Your task to perform on an android device: Show the shopping cart on ebay.com. Add jbl flip 4 to the cart on ebay.com, then select checkout. Image 0: 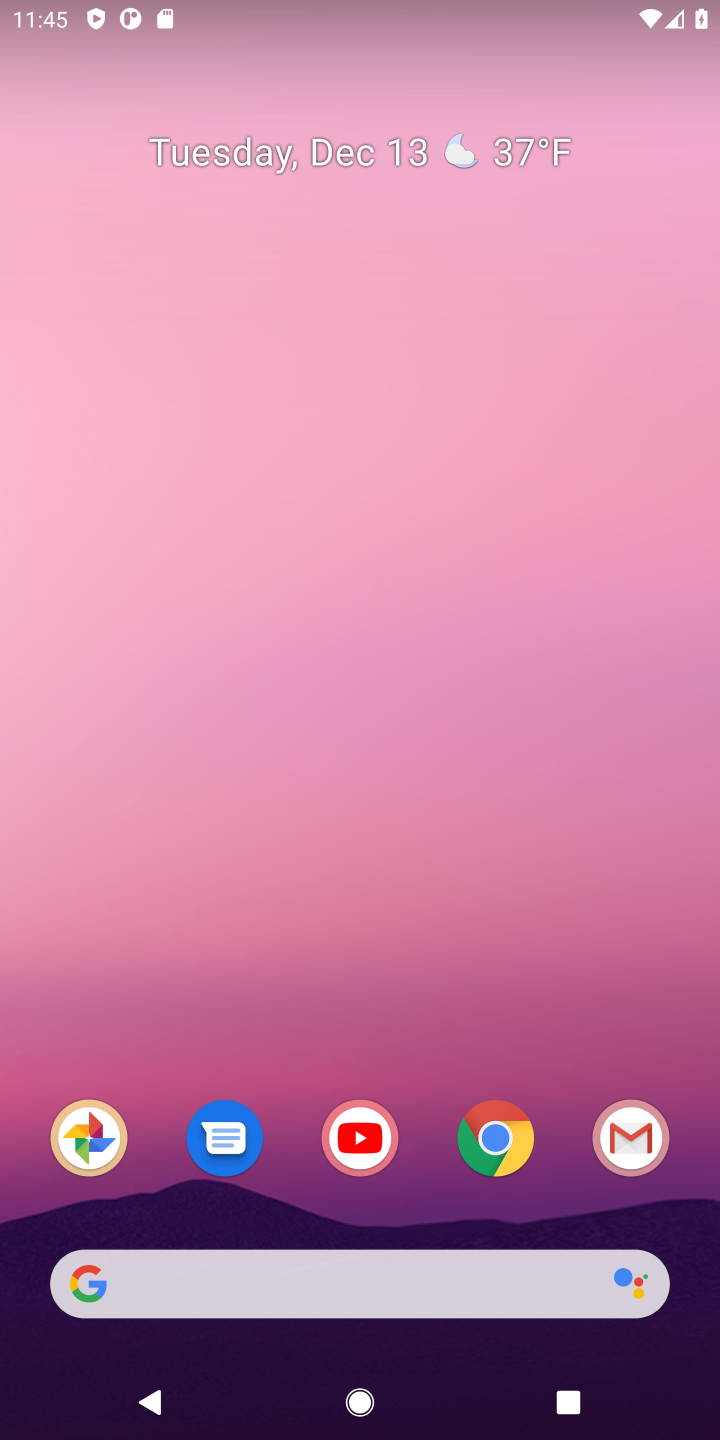
Step 0: click (495, 1154)
Your task to perform on an android device: Show the shopping cart on ebay.com. Add jbl flip 4 to the cart on ebay.com, then select checkout. Image 1: 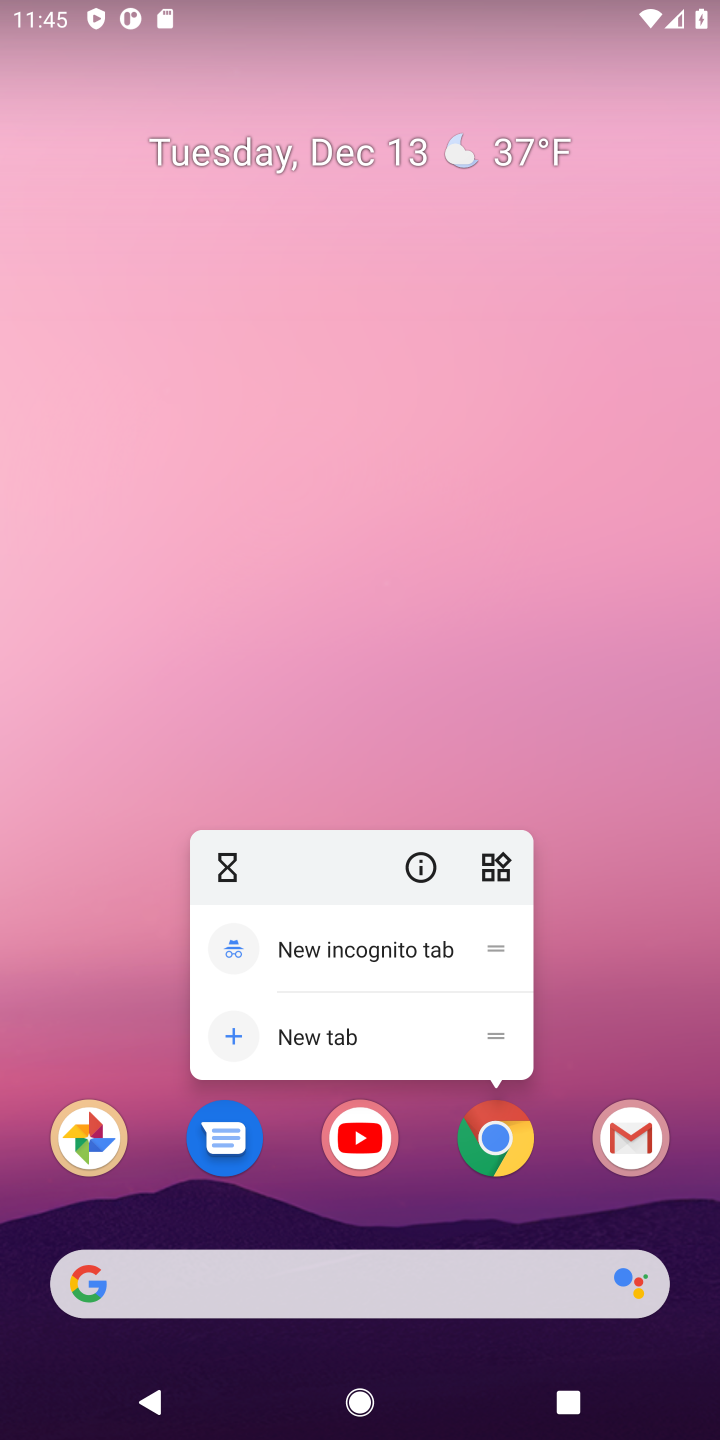
Step 1: click (497, 1136)
Your task to perform on an android device: Show the shopping cart on ebay.com. Add jbl flip 4 to the cart on ebay.com, then select checkout. Image 2: 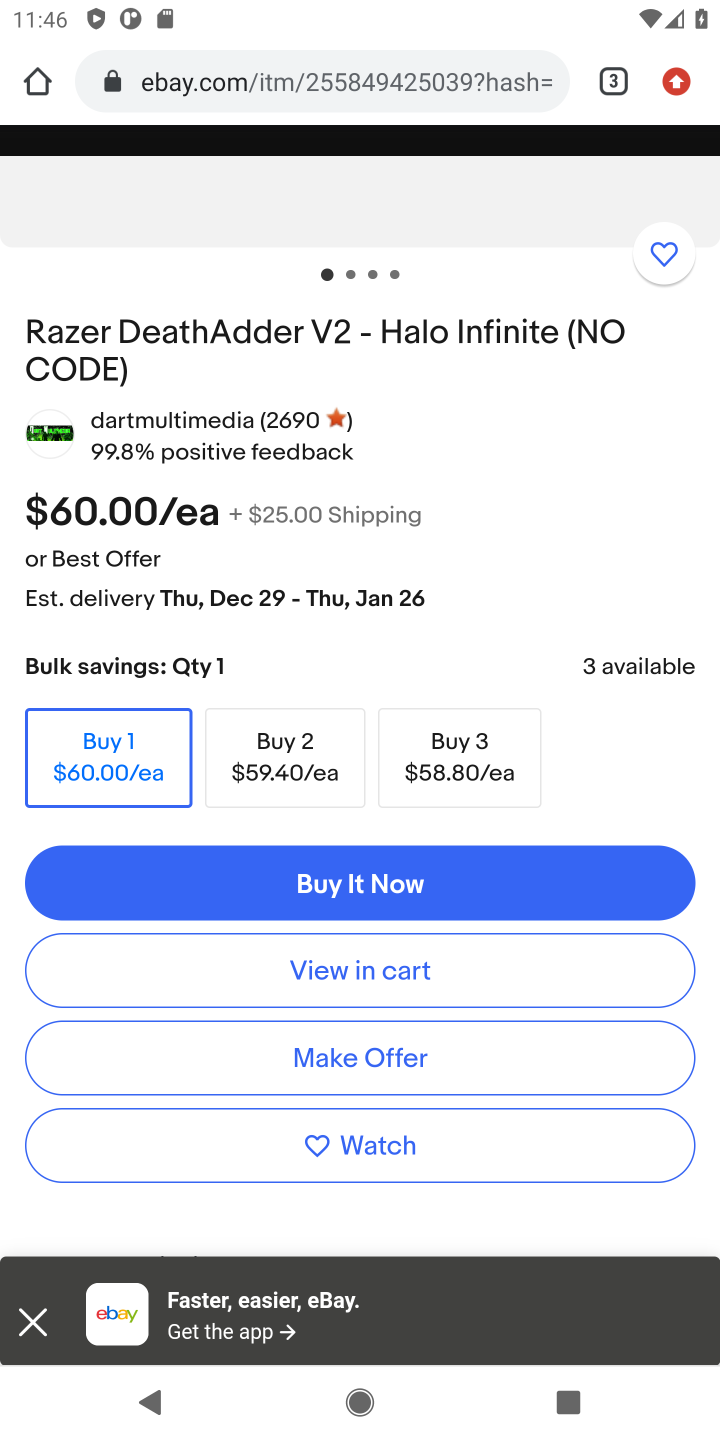
Step 2: drag from (420, 305) to (420, 1122)
Your task to perform on an android device: Show the shopping cart on ebay.com. Add jbl flip 4 to the cart on ebay.com, then select checkout. Image 3: 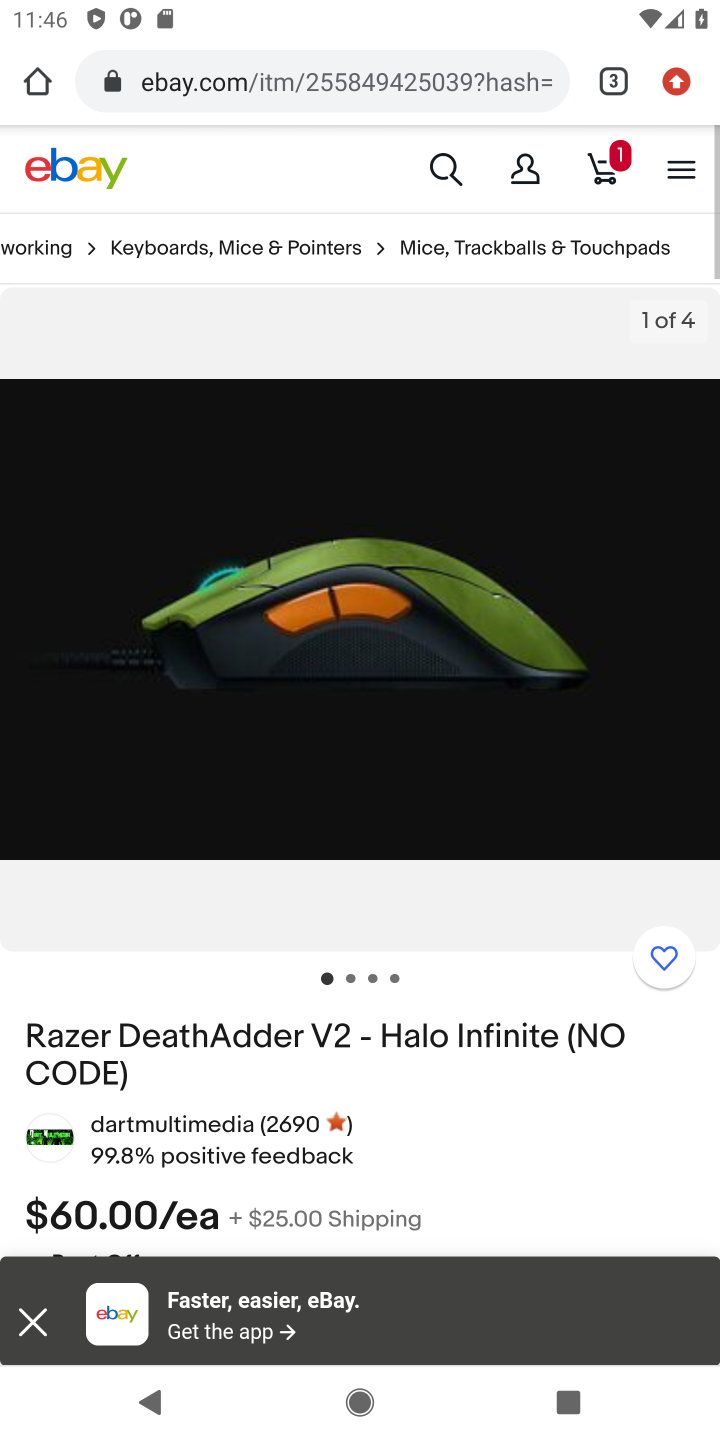
Step 3: drag from (470, 245) to (500, 948)
Your task to perform on an android device: Show the shopping cart on ebay.com. Add jbl flip 4 to the cart on ebay.com, then select checkout. Image 4: 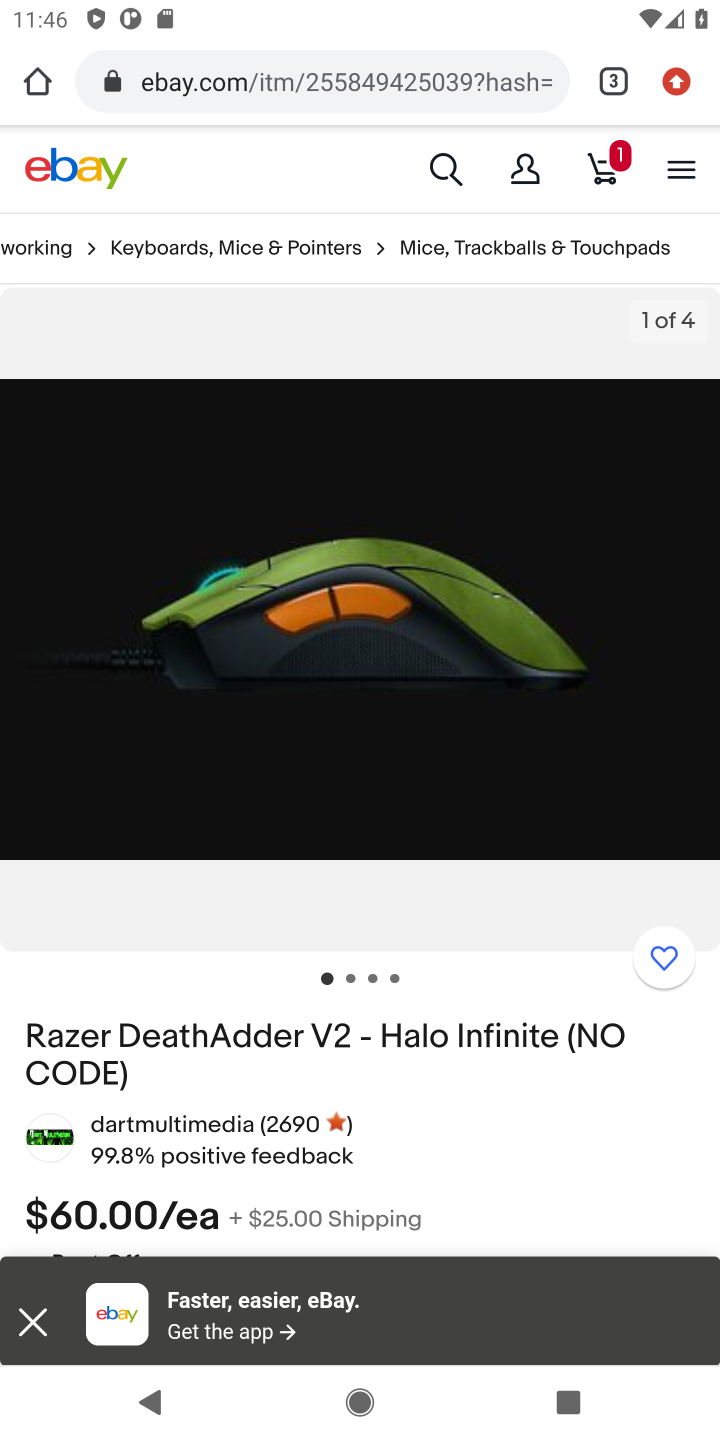
Step 4: click (442, 168)
Your task to perform on an android device: Show the shopping cart on ebay.com. Add jbl flip 4 to the cart on ebay.com, then select checkout. Image 5: 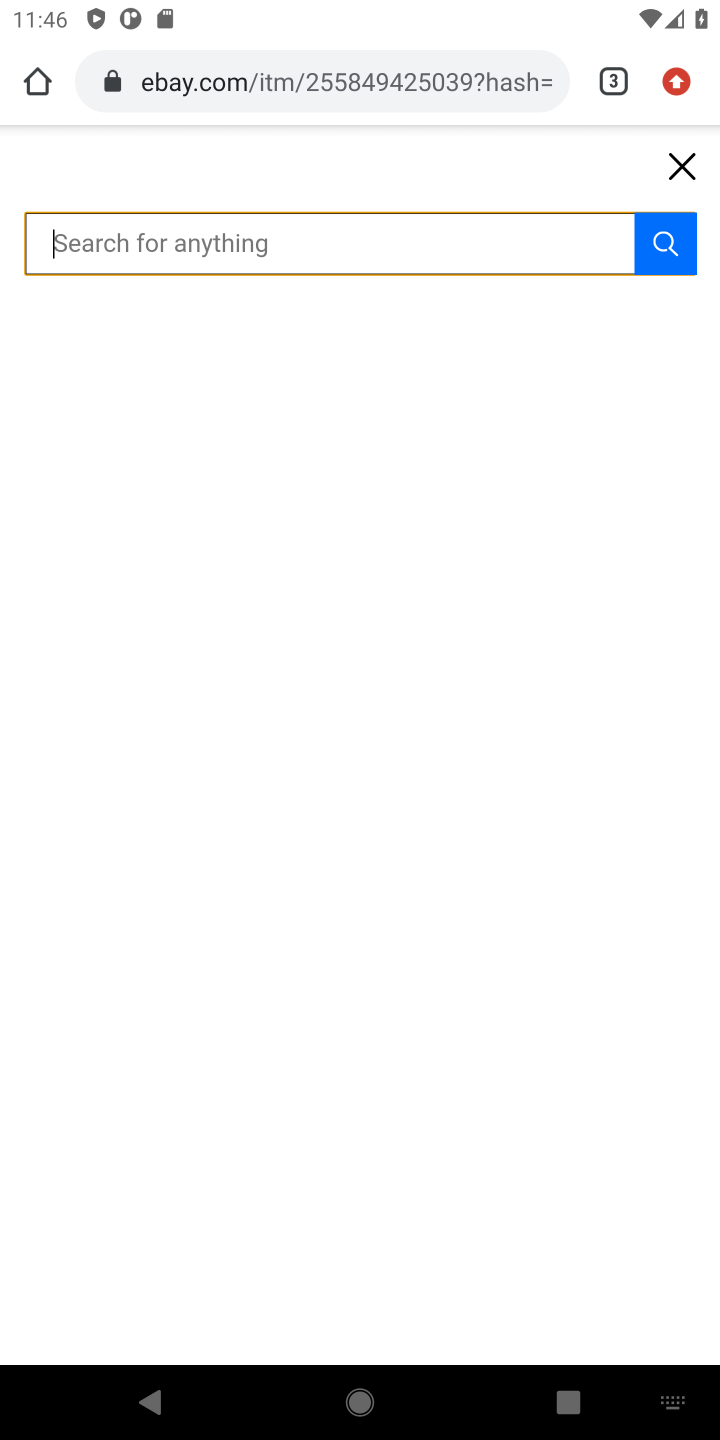
Step 5: type "jbl flip 4"
Your task to perform on an android device: Show the shopping cart on ebay.com. Add jbl flip 4 to the cart on ebay.com, then select checkout. Image 6: 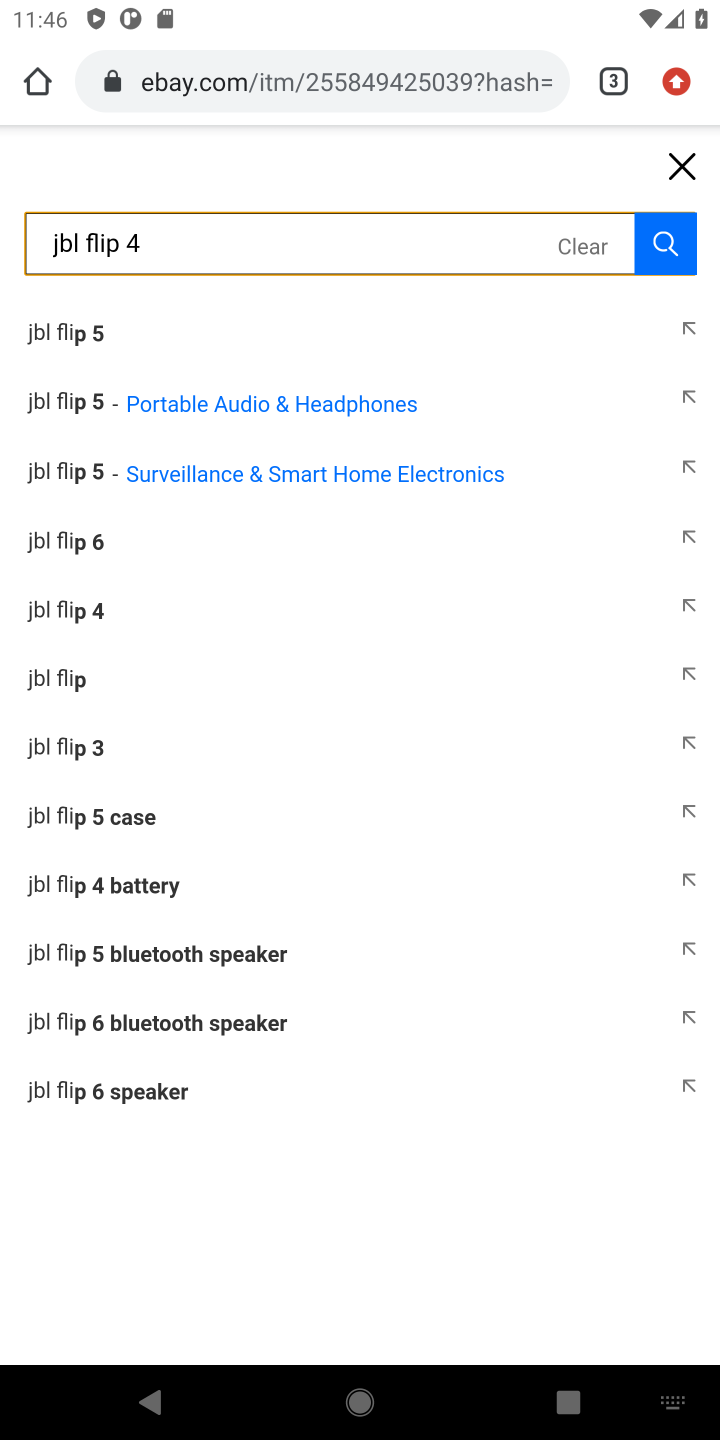
Step 6: click (66, 397)
Your task to perform on an android device: Show the shopping cart on ebay.com. Add jbl flip 4 to the cart on ebay.com, then select checkout. Image 7: 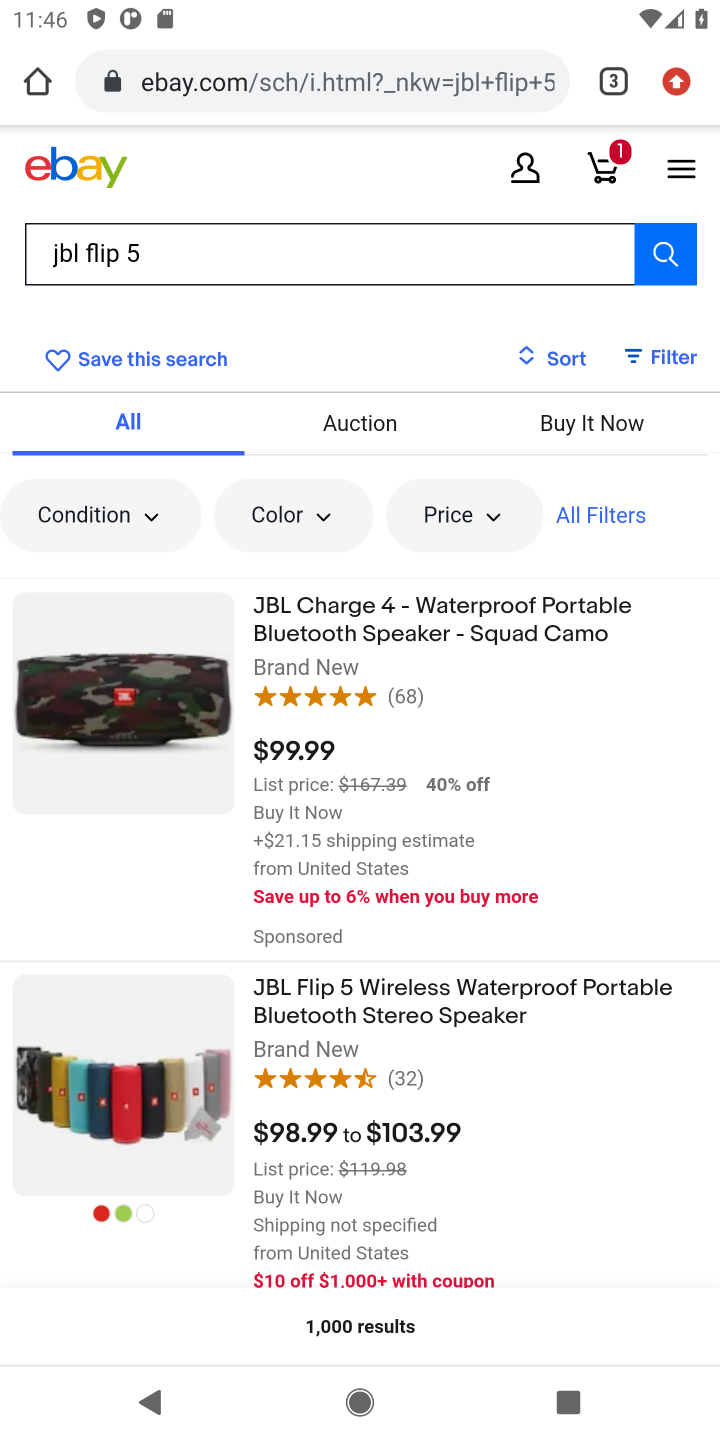
Step 7: click (454, 641)
Your task to perform on an android device: Show the shopping cart on ebay.com. Add jbl flip 4 to the cart on ebay.com, then select checkout. Image 8: 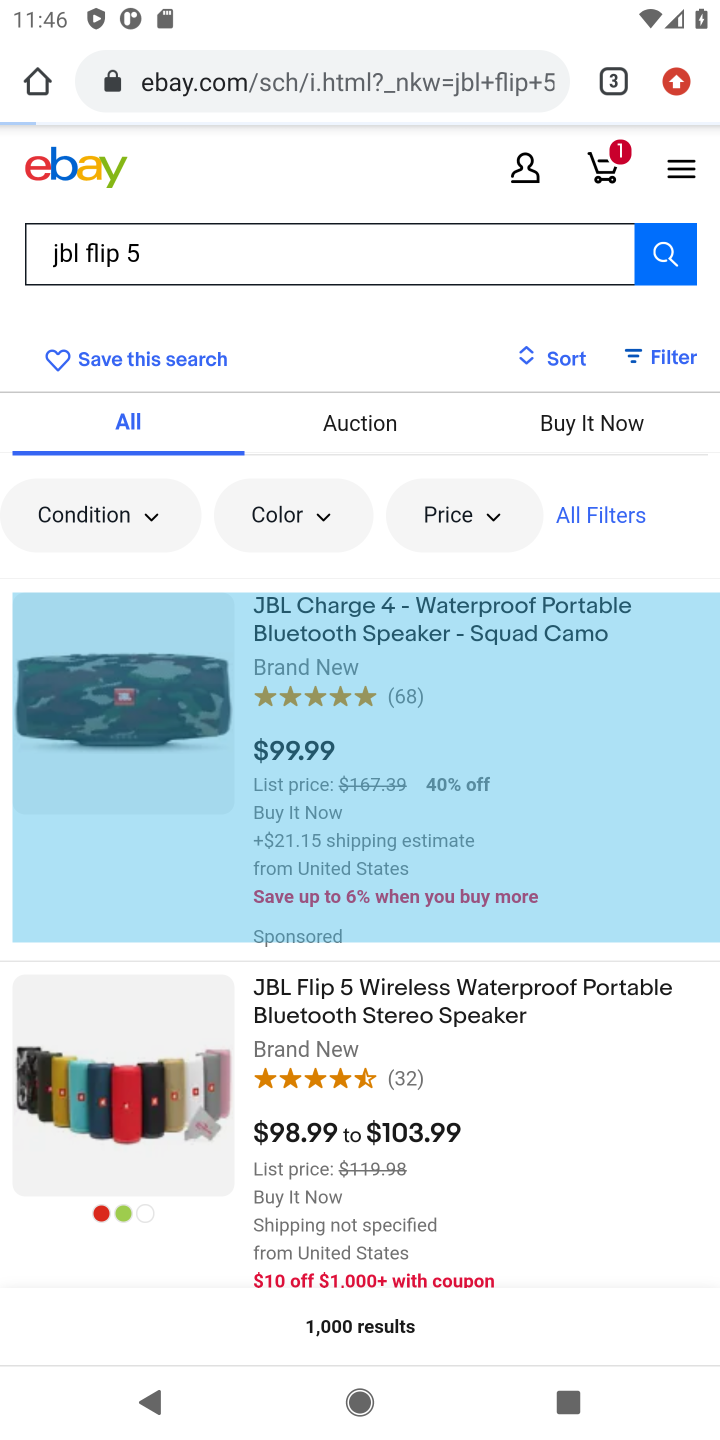
Step 8: click (454, 641)
Your task to perform on an android device: Show the shopping cart on ebay.com. Add jbl flip 4 to the cart on ebay.com, then select checkout. Image 9: 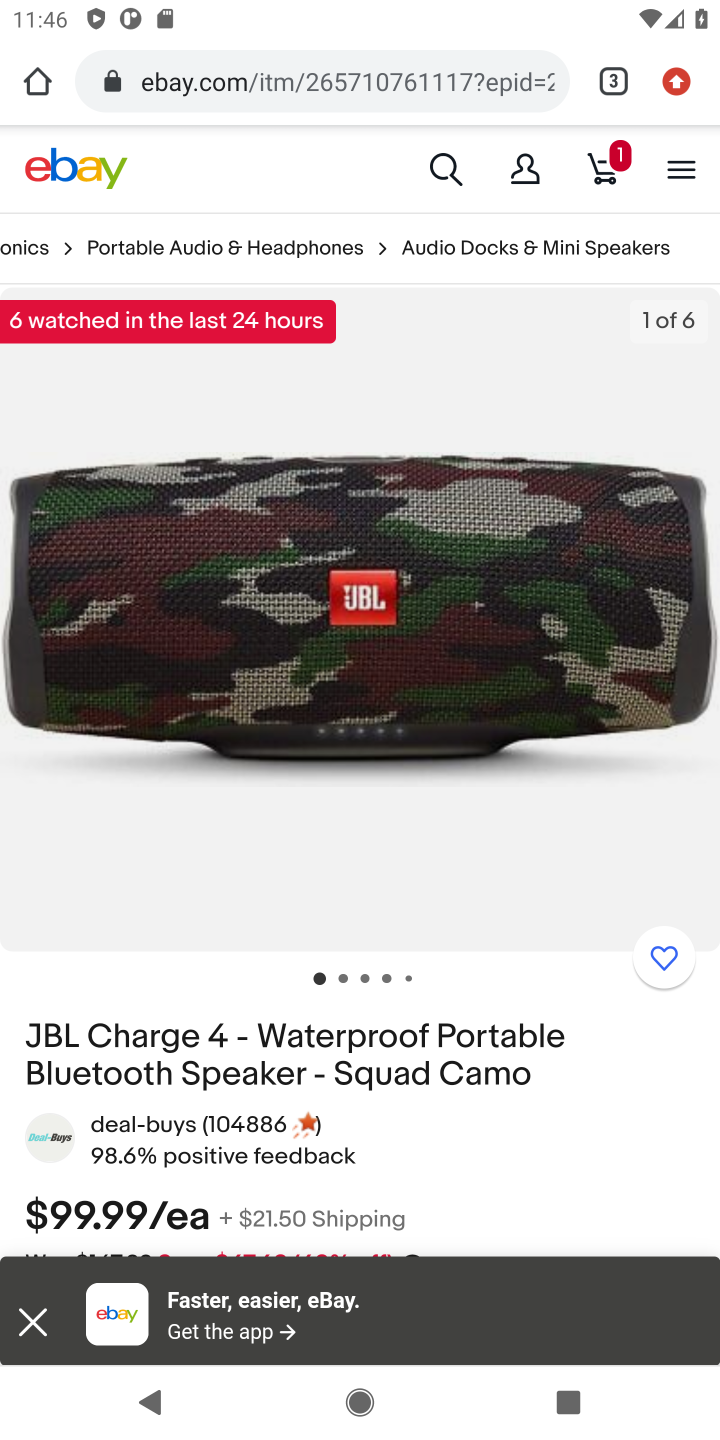
Step 9: drag from (541, 1169) to (666, 724)
Your task to perform on an android device: Show the shopping cart on ebay.com. Add jbl flip 4 to the cart on ebay.com, then select checkout. Image 10: 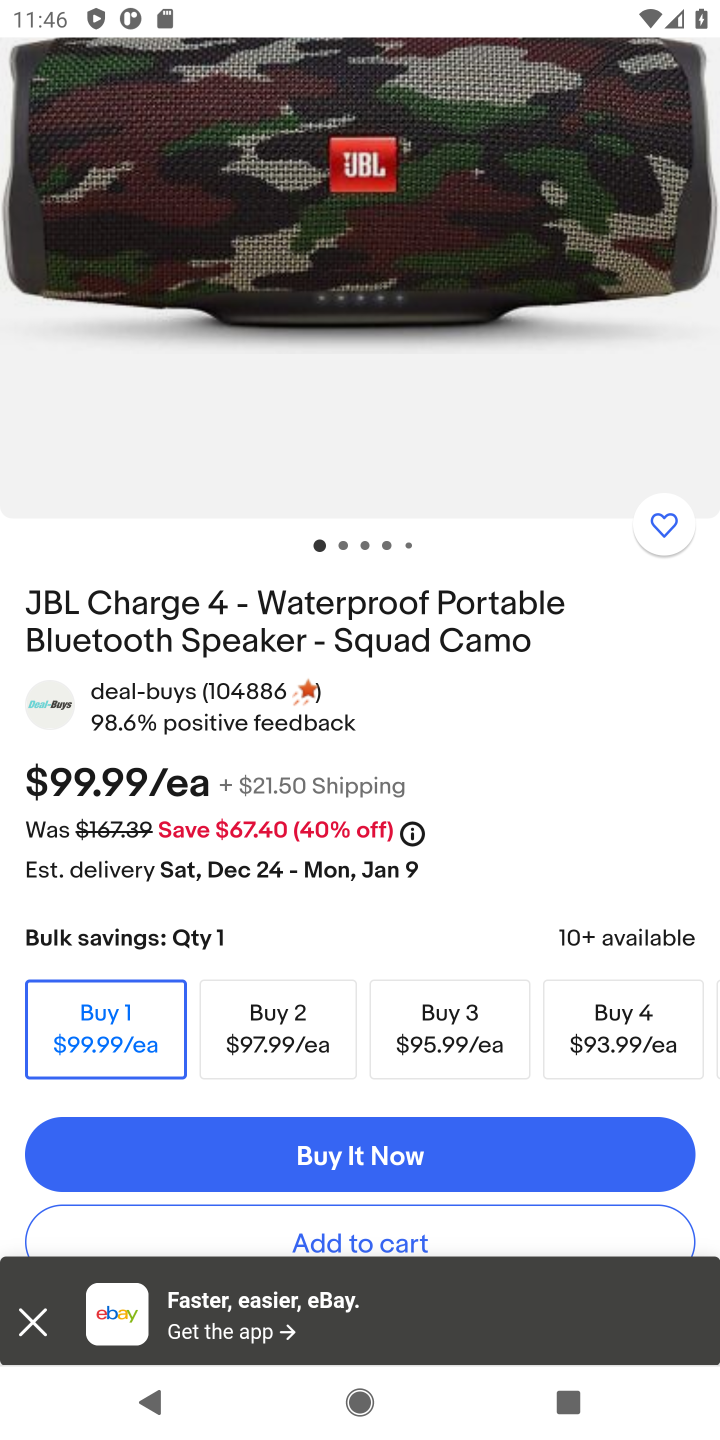
Step 10: drag from (473, 848) to (701, 636)
Your task to perform on an android device: Show the shopping cart on ebay.com. Add jbl flip 4 to the cart on ebay.com, then select checkout. Image 11: 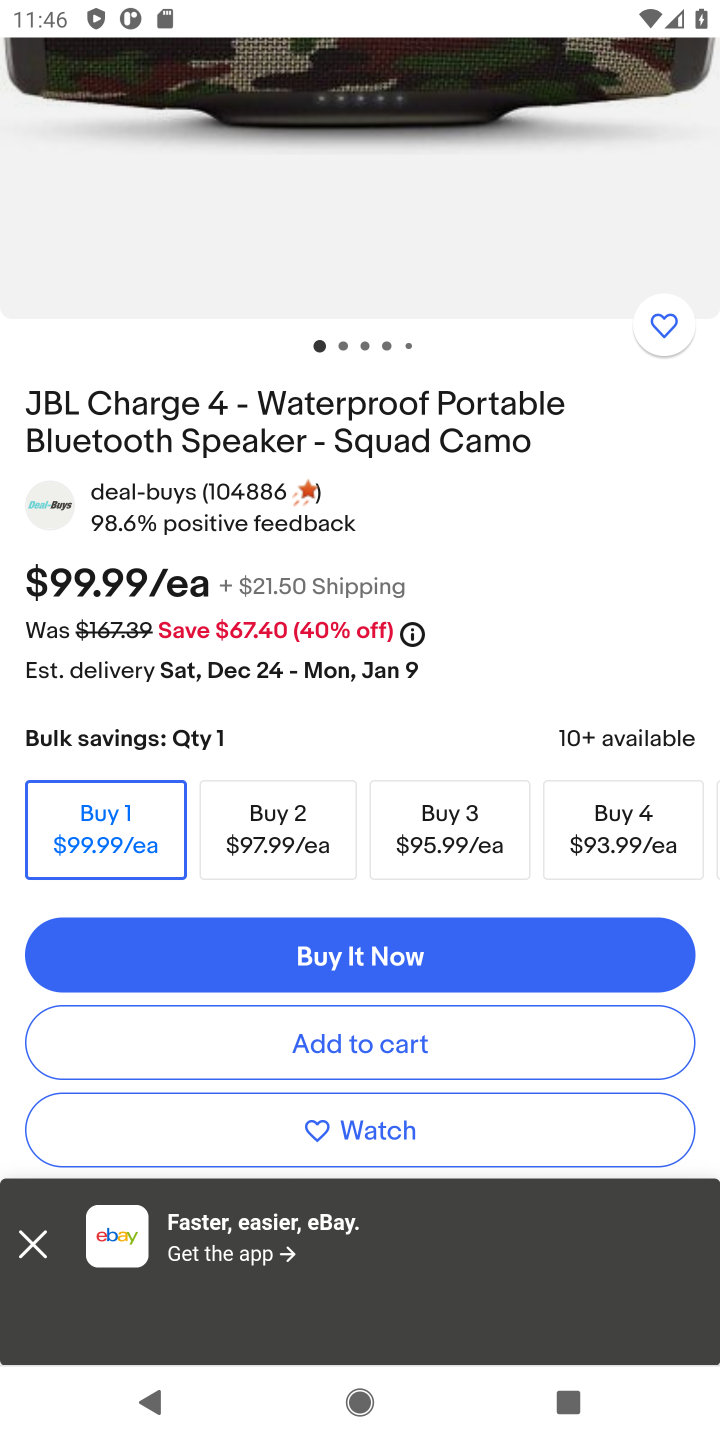
Step 11: click (361, 1027)
Your task to perform on an android device: Show the shopping cart on ebay.com. Add jbl flip 4 to the cart on ebay.com, then select checkout. Image 12: 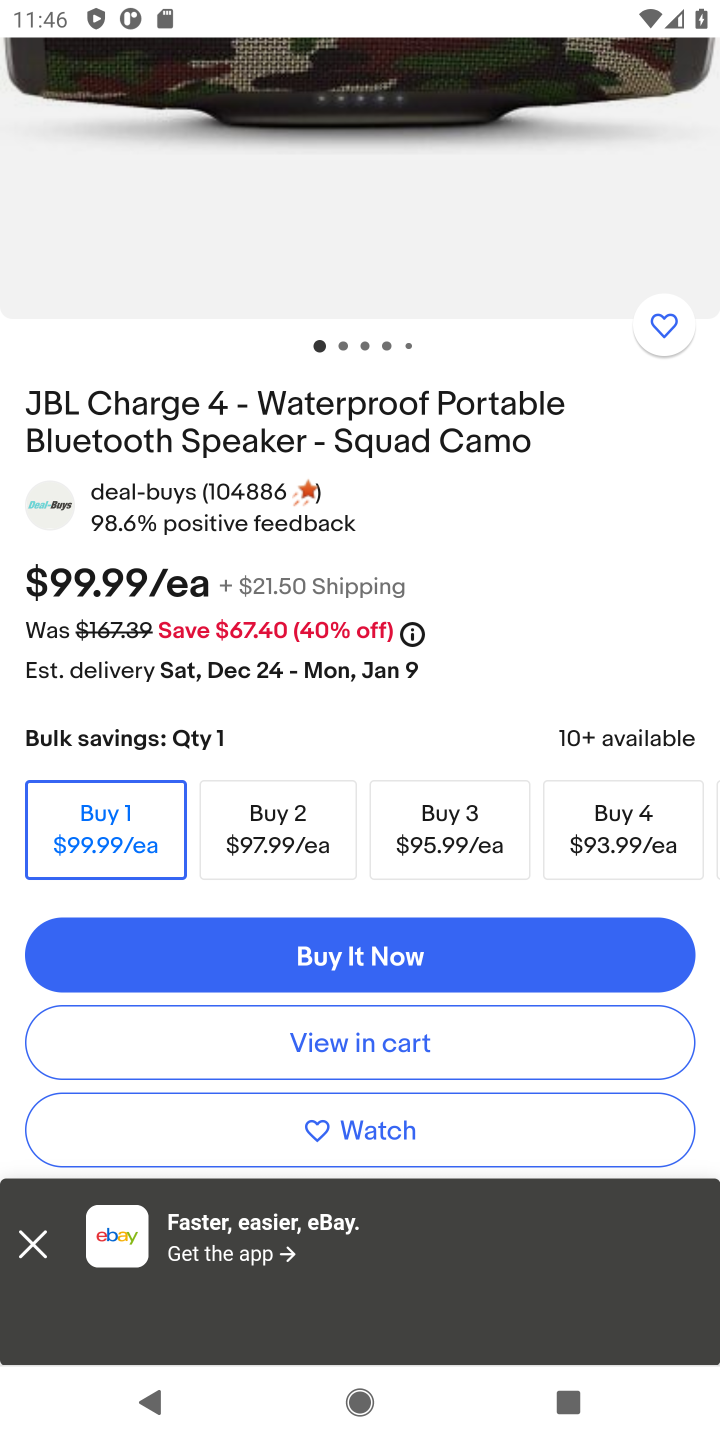
Step 12: task complete